Your task to perform on an android device: Clear the cart on amazon.com. Image 0: 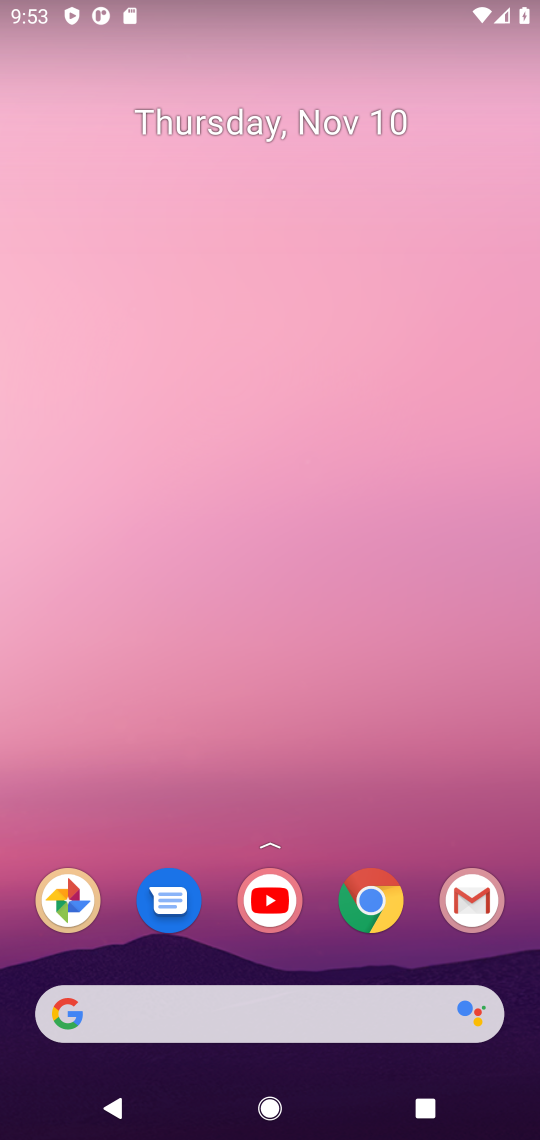
Step 0: click (379, 913)
Your task to perform on an android device: Clear the cart on amazon.com. Image 1: 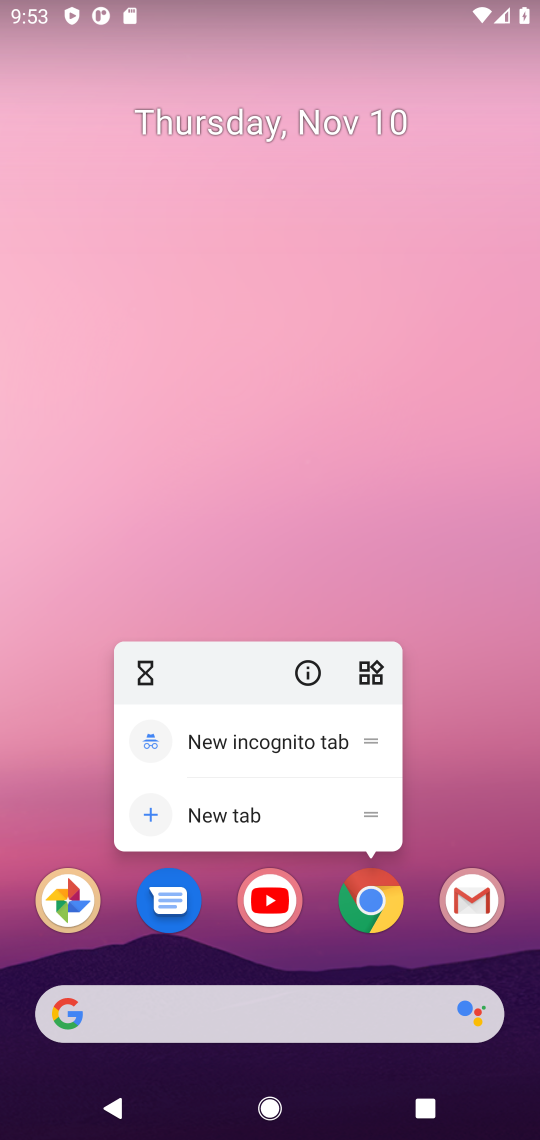
Step 1: click (379, 911)
Your task to perform on an android device: Clear the cart on amazon.com. Image 2: 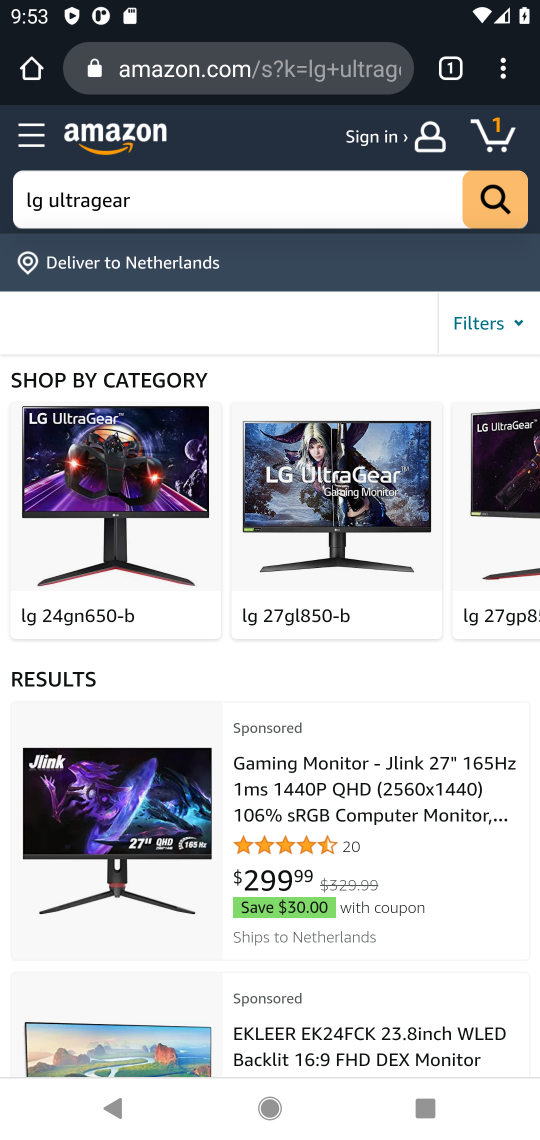
Step 2: click (488, 135)
Your task to perform on an android device: Clear the cart on amazon.com. Image 3: 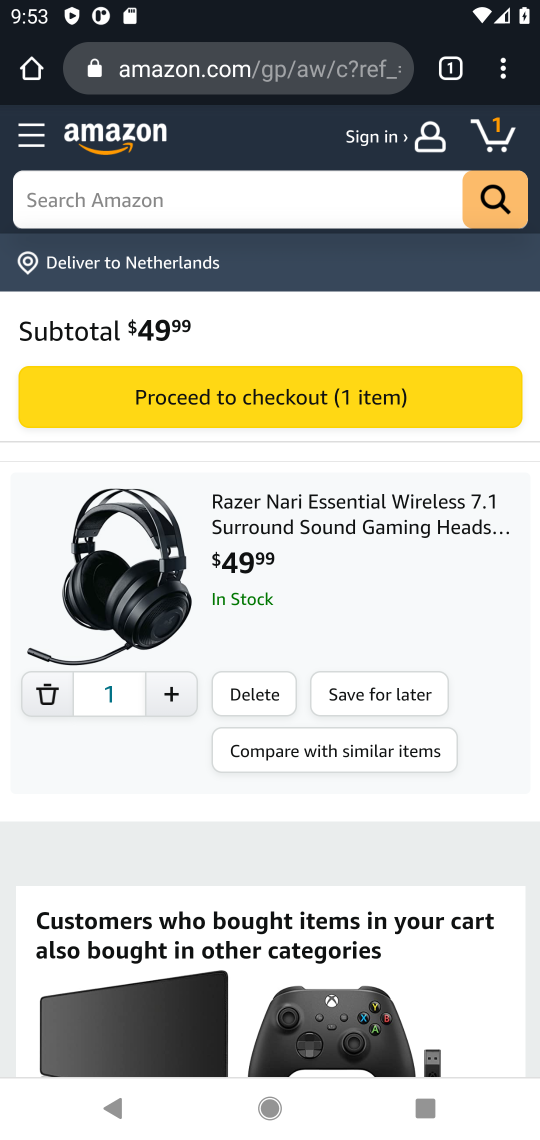
Step 3: click (244, 695)
Your task to perform on an android device: Clear the cart on amazon.com. Image 4: 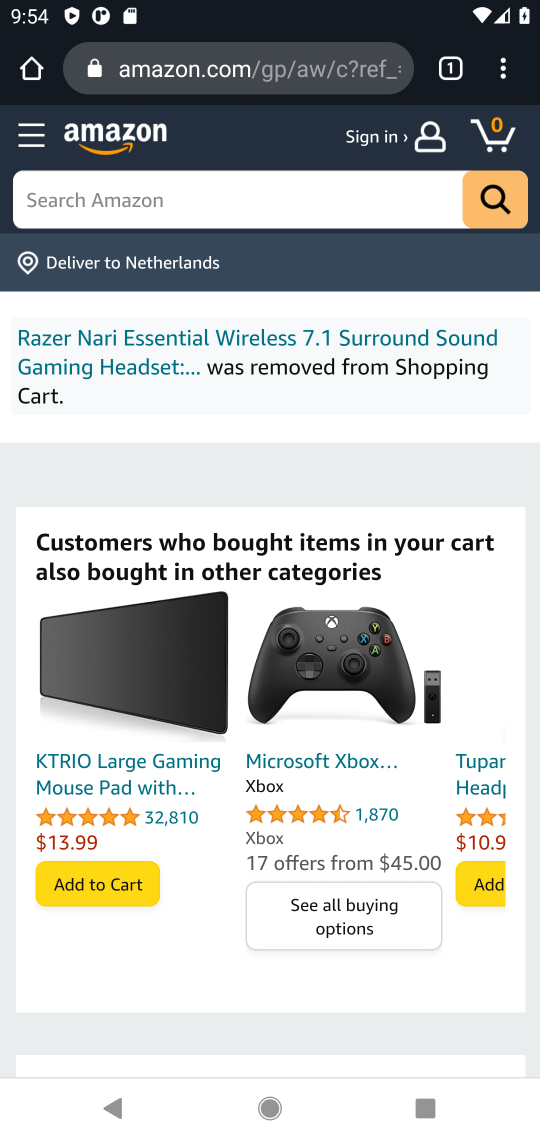
Step 4: task complete